Your task to perform on an android device: Open location settings Image 0: 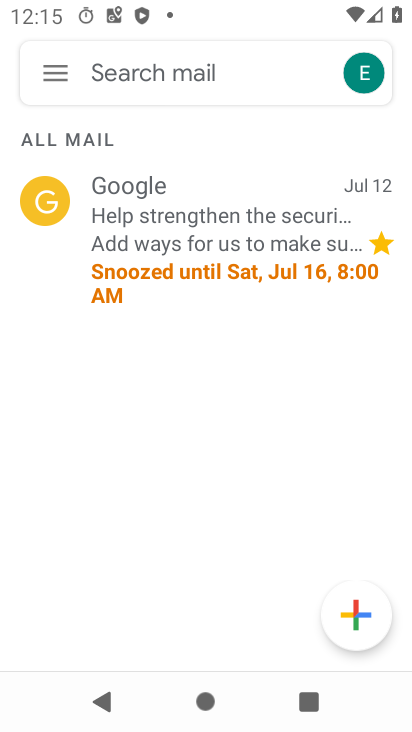
Step 0: press home button
Your task to perform on an android device: Open location settings Image 1: 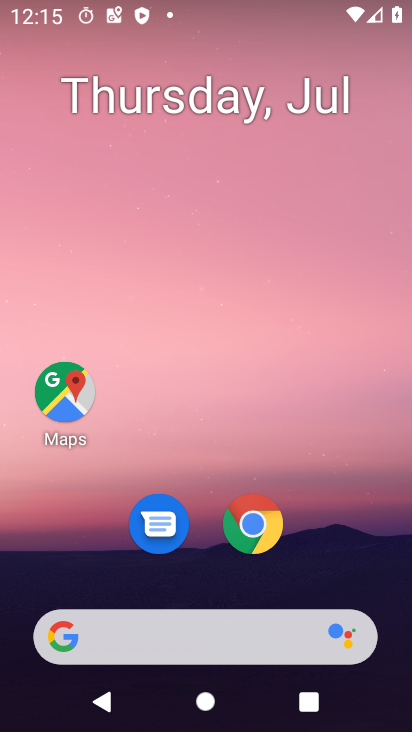
Step 1: drag from (156, 636) to (250, 76)
Your task to perform on an android device: Open location settings Image 2: 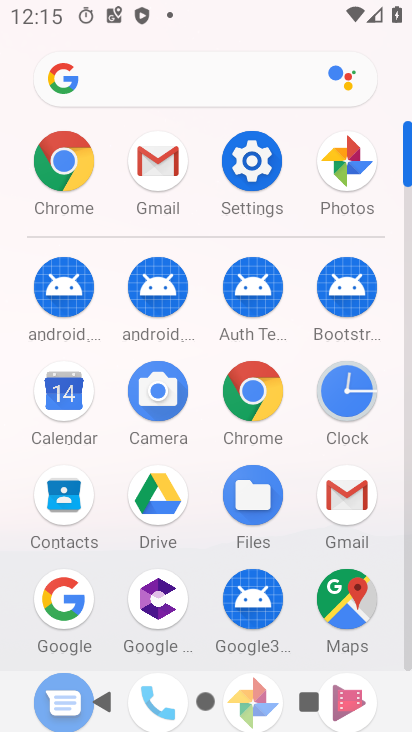
Step 2: click (253, 175)
Your task to perform on an android device: Open location settings Image 3: 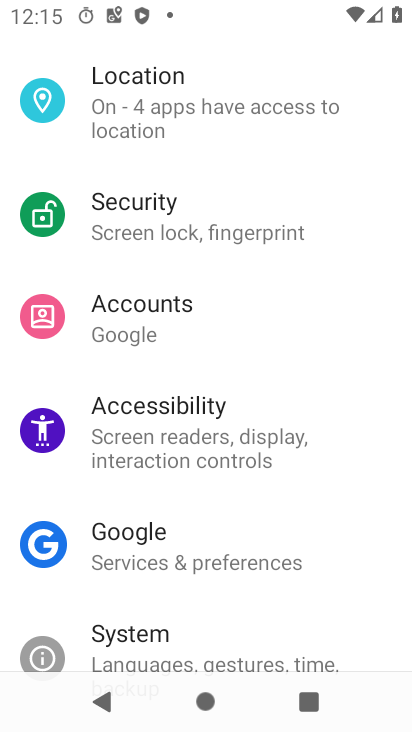
Step 3: click (148, 110)
Your task to perform on an android device: Open location settings Image 4: 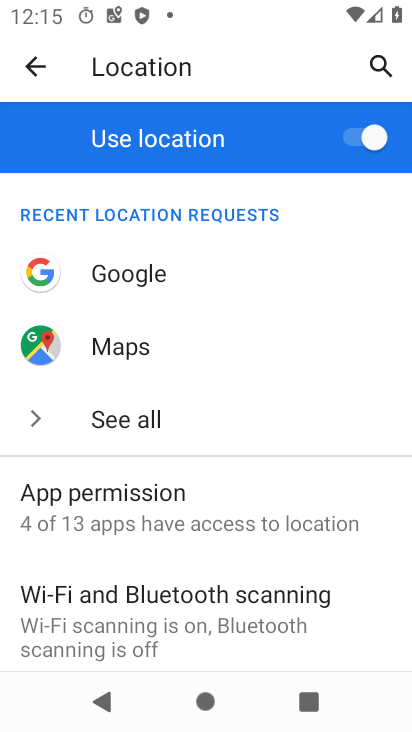
Step 4: task complete